Your task to perform on an android device: Check the weather Image 0: 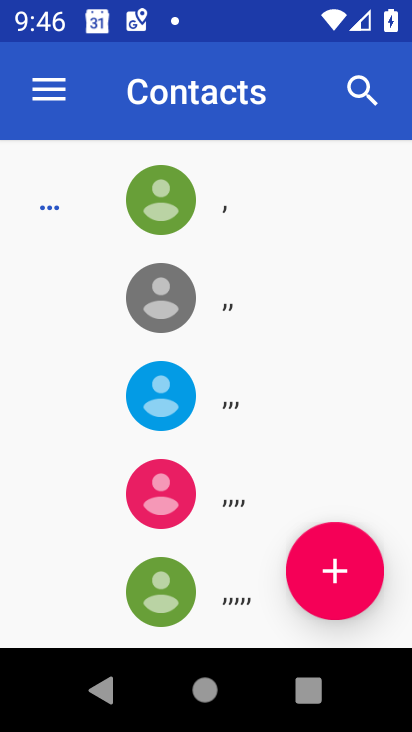
Step 0: press home button
Your task to perform on an android device: Check the weather Image 1: 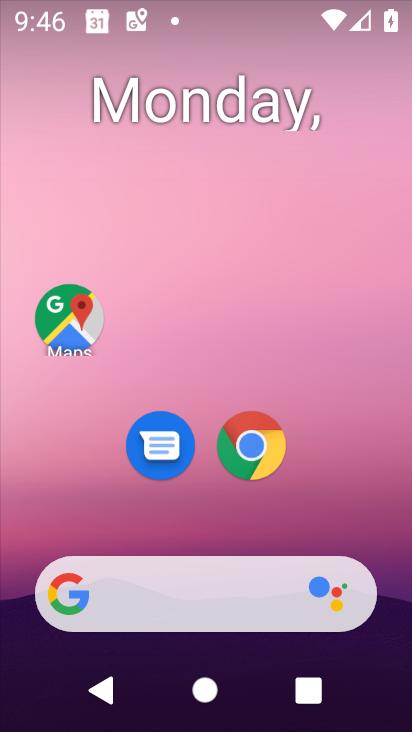
Step 1: click (176, 621)
Your task to perform on an android device: Check the weather Image 2: 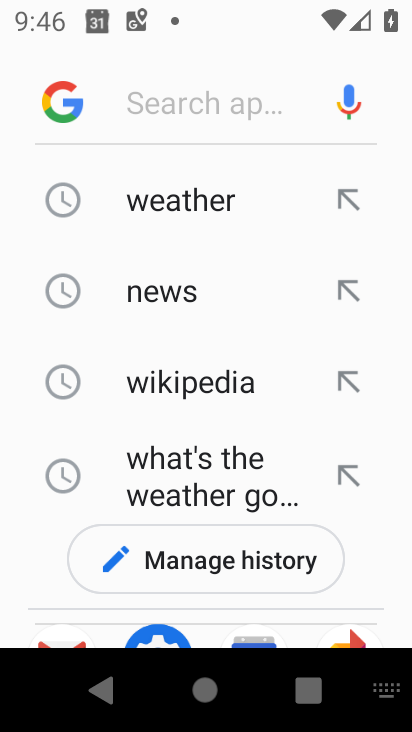
Step 2: click (228, 204)
Your task to perform on an android device: Check the weather Image 3: 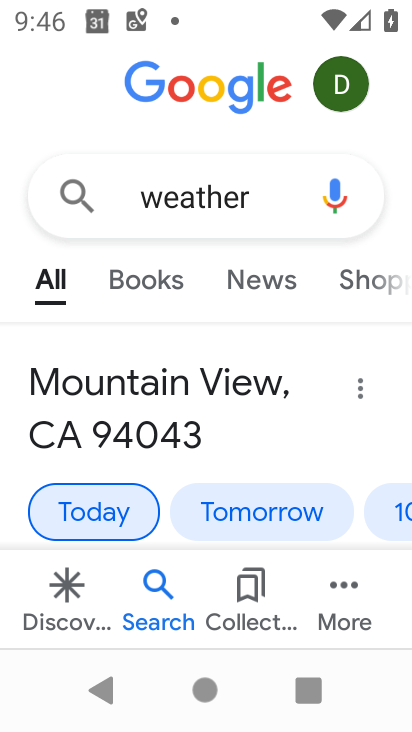
Step 3: task complete